Your task to perform on an android device: turn on airplane mode Image 0: 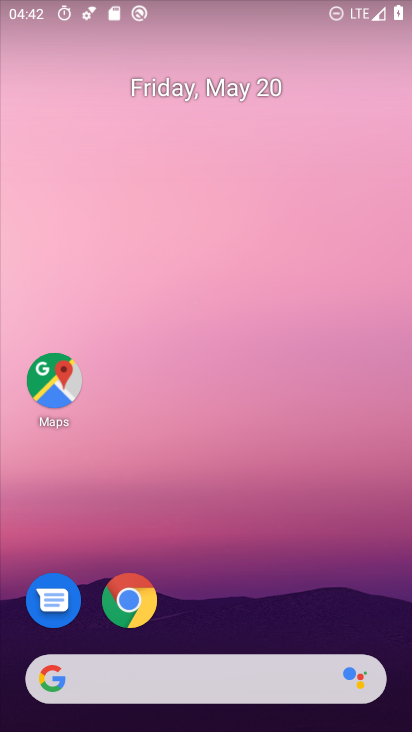
Step 0: drag from (267, 46) to (265, 594)
Your task to perform on an android device: turn on airplane mode Image 1: 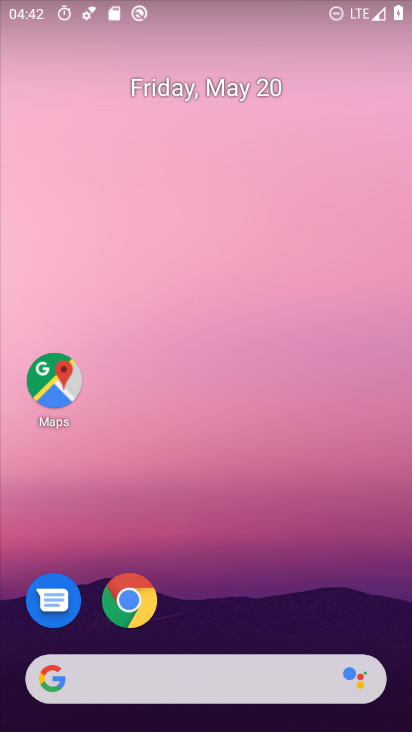
Step 1: drag from (94, 8) to (139, 557)
Your task to perform on an android device: turn on airplane mode Image 2: 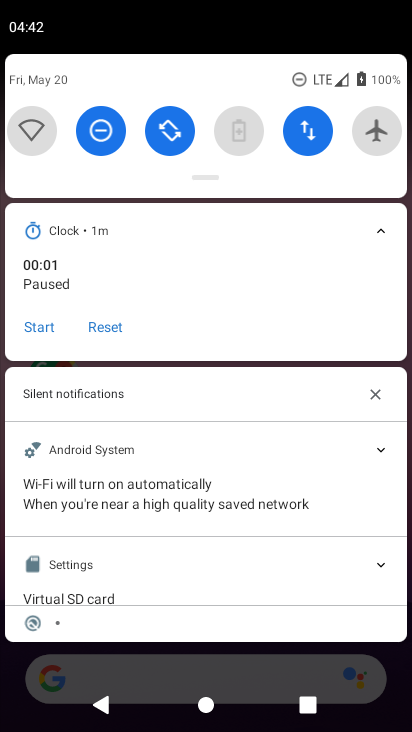
Step 2: click (369, 118)
Your task to perform on an android device: turn on airplane mode Image 3: 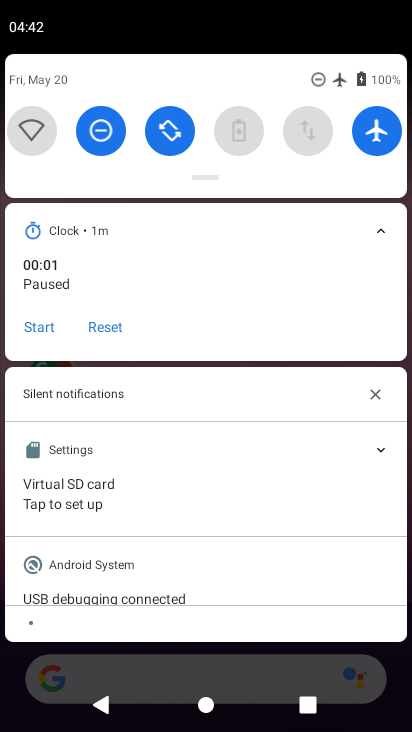
Step 3: task complete